Your task to perform on an android device: turn on airplane mode Image 0: 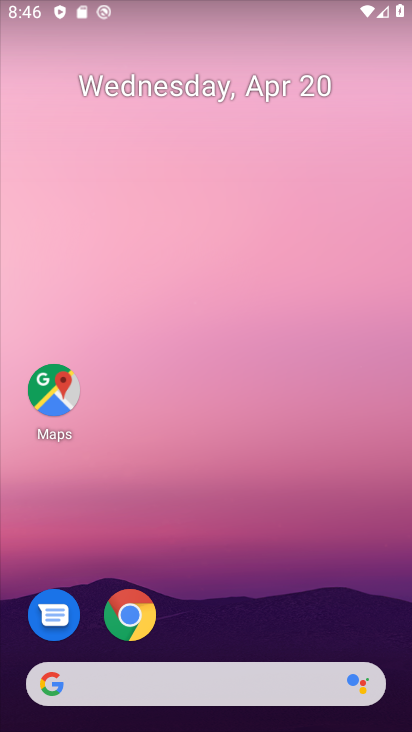
Step 0: drag from (289, 583) to (297, 29)
Your task to perform on an android device: turn on airplane mode Image 1: 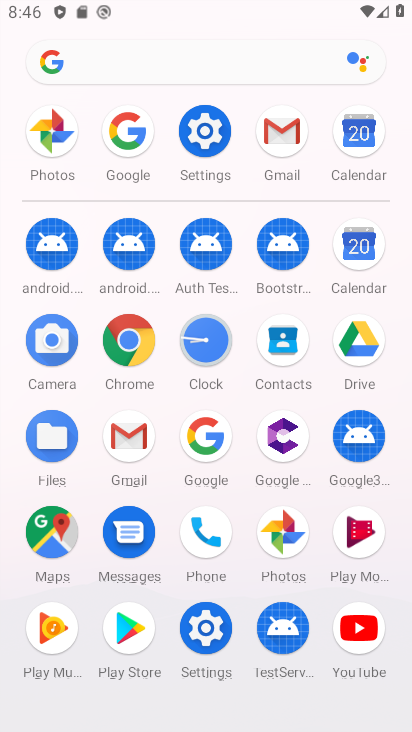
Step 1: click (207, 131)
Your task to perform on an android device: turn on airplane mode Image 2: 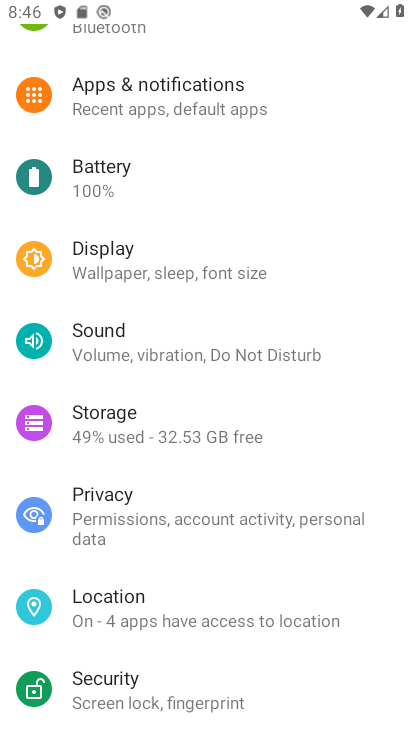
Step 2: drag from (248, 203) to (260, 305)
Your task to perform on an android device: turn on airplane mode Image 3: 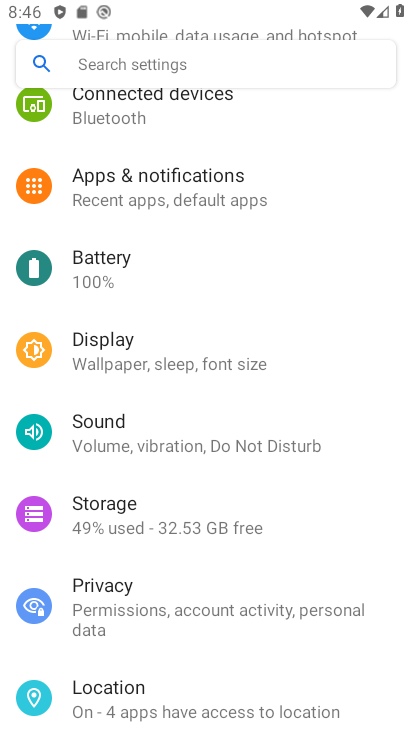
Step 3: drag from (258, 168) to (268, 287)
Your task to perform on an android device: turn on airplane mode Image 4: 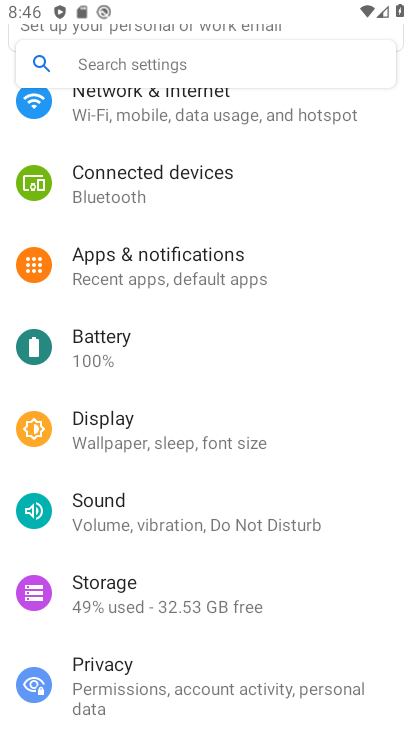
Step 4: drag from (246, 220) to (262, 344)
Your task to perform on an android device: turn on airplane mode Image 5: 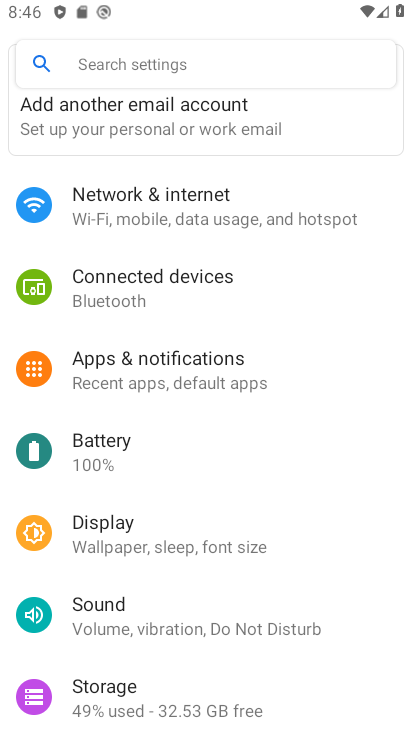
Step 5: click (177, 196)
Your task to perform on an android device: turn on airplane mode Image 6: 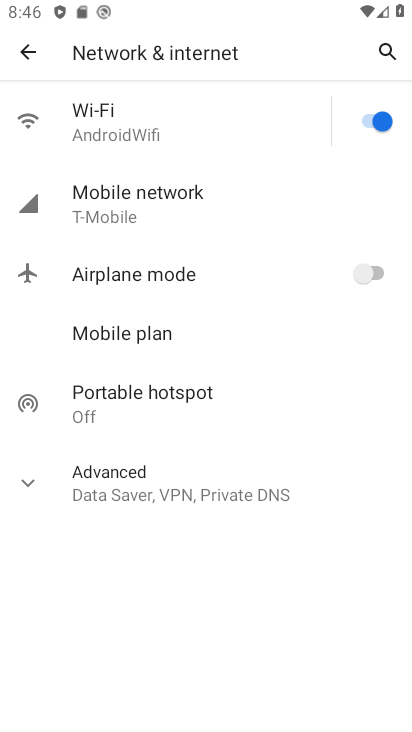
Step 6: click (362, 278)
Your task to perform on an android device: turn on airplane mode Image 7: 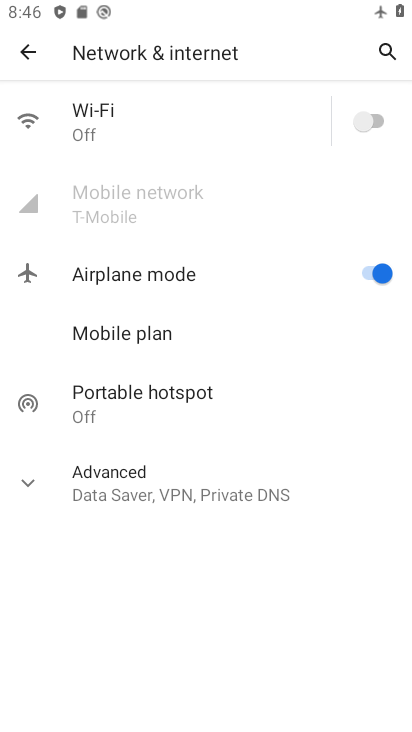
Step 7: task complete